Your task to perform on an android device: Go to sound settings Image 0: 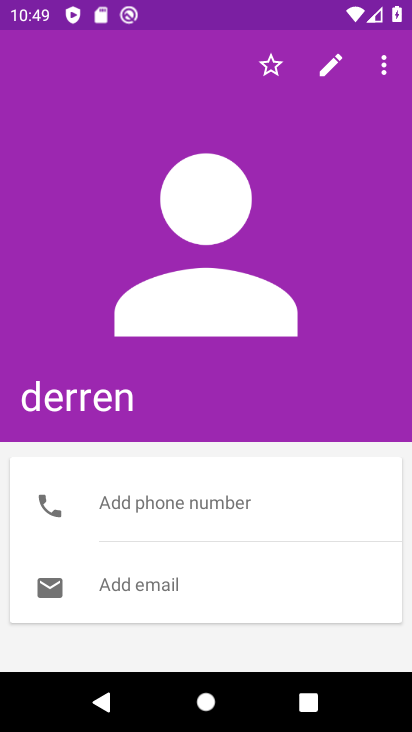
Step 0: press home button
Your task to perform on an android device: Go to sound settings Image 1: 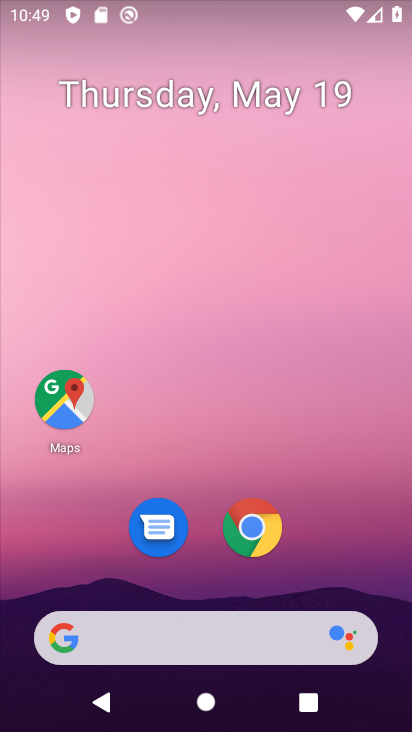
Step 1: drag from (208, 592) to (232, 6)
Your task to perform on an android device: Go to sound settings Image 2: 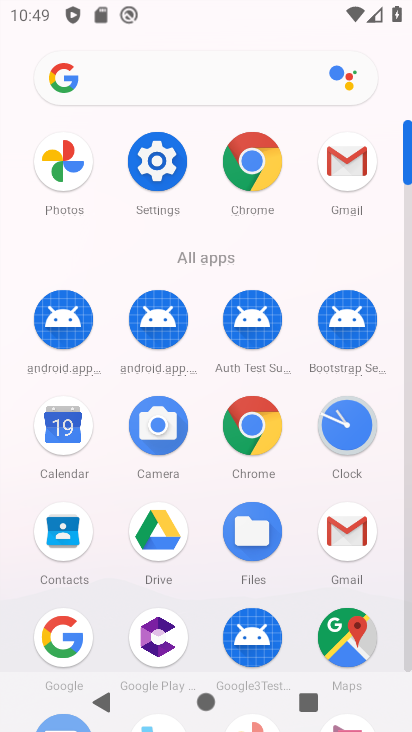
Step 2: click (151, 173)
Your task to perform on an android device: Go to sound settings Image 3: 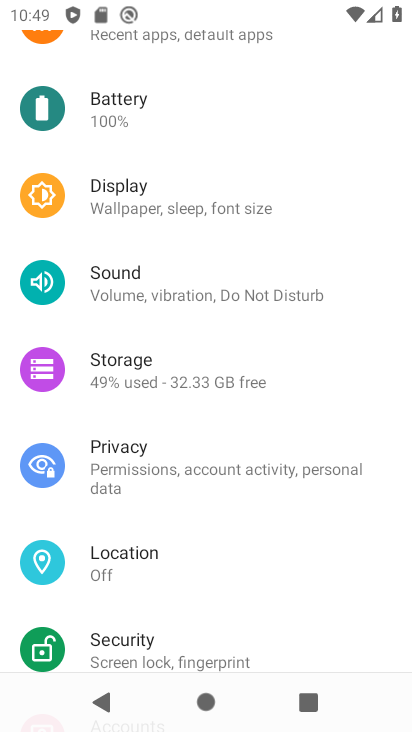
Step 3: click (121, 295)
Your task to perform on an android device: Go to sound settings Image 4: 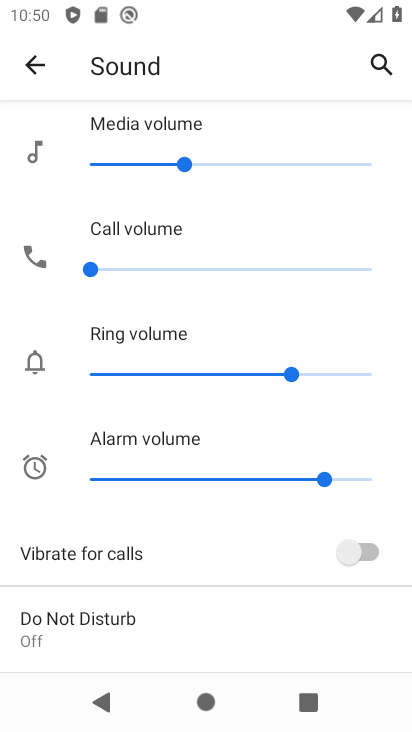
Step 4: task complete